Your task to perform on an android device: Open the stopwatch Image 0: 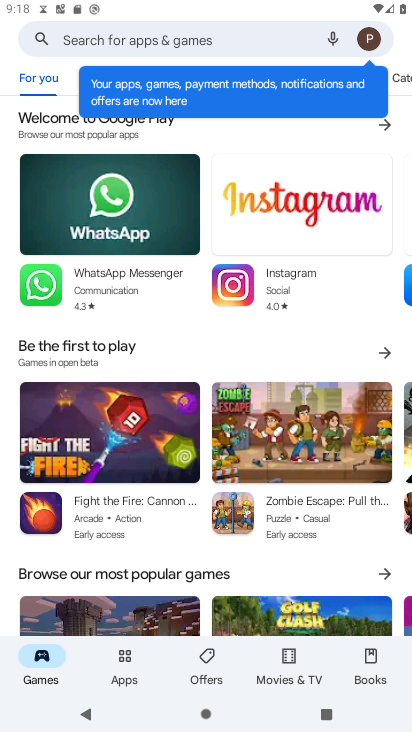
Step 0: press home button
Your task to perform on an android device: Open the stopwatch Image 1: 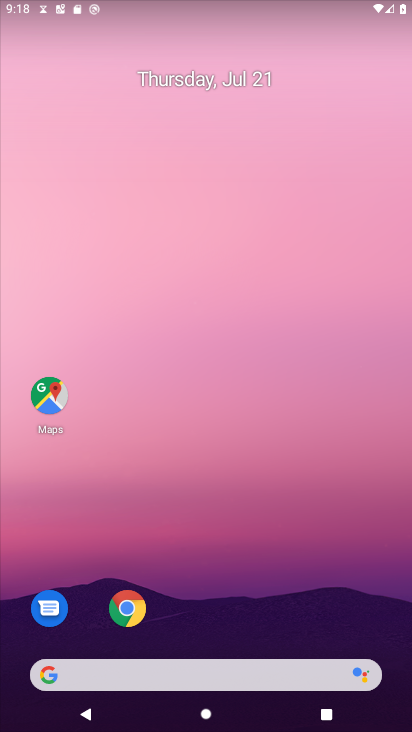
Step 1: drag from (174, 563) to (176, 198)
Your task to perform on an android device: Open the stopwatch Image 2: 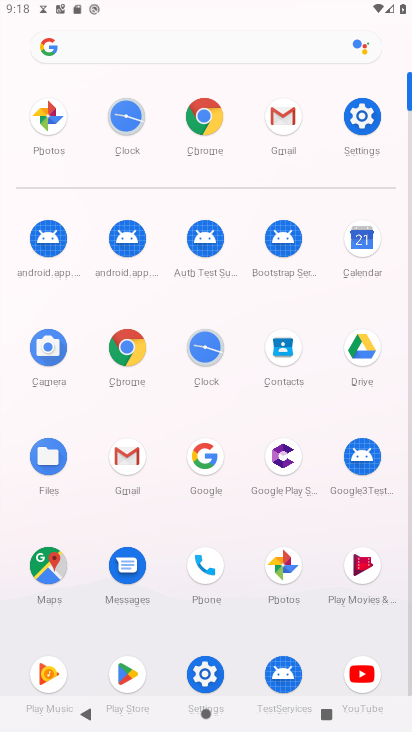
Step 2: click (199, 350)
Your task to perform on an android device: Open the stopwatch Image 3: 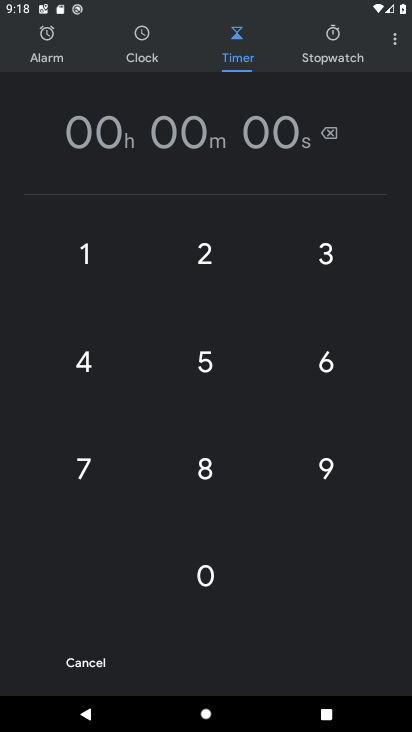
Step 3: click (320, 51)
Your task to perform on an android device: Open the stopwatch Image 4: 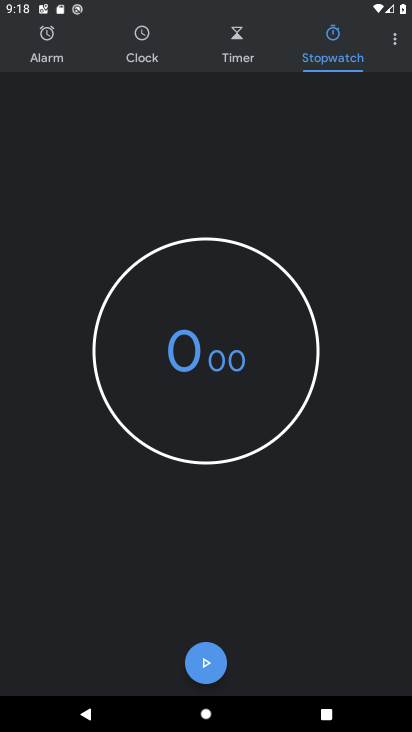
Step 4: task complete